Your task to perform on an android device: Show me the alarms in the clock app Image 0: 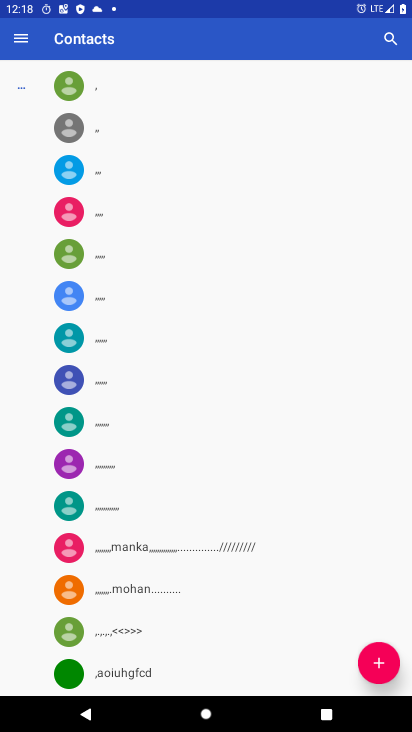
Step 0: press home button
Your task to perform on an android device: Show me the alarms in the clock app Image 1: 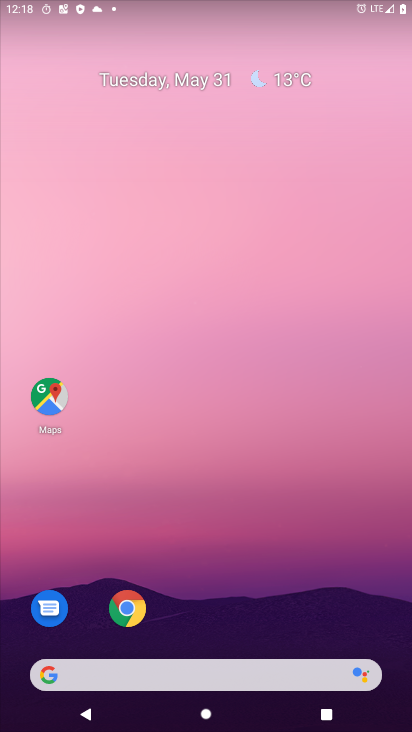
Step 1: drag from (251, 387) to (294, 9)
Your task to perform on an android device: Show me the alarms in the clock app Image 2: 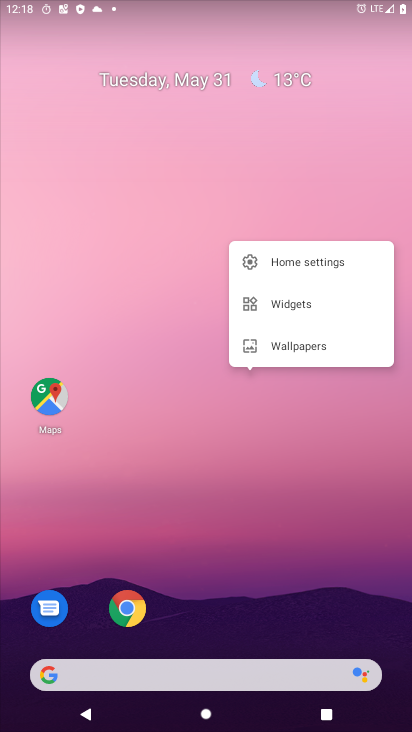
Step 2: drag from (234, 594) to (222, 19)
Your task to perform on an android device: Show me the alarms in the clock app Image 3: 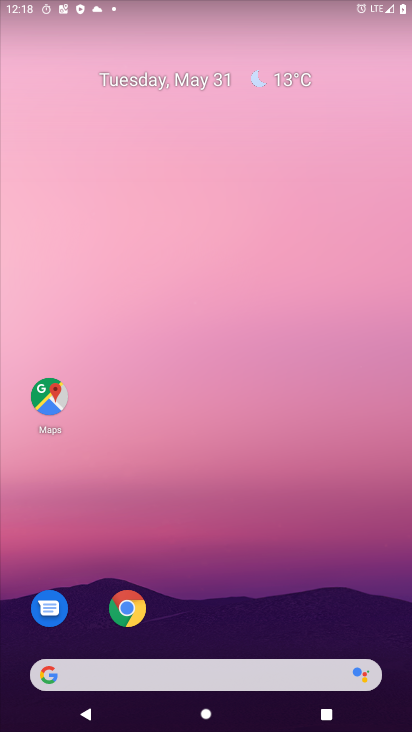
Step 3: drag from (282, 588) to (299, 1)
Your task to perform on an android device: Show me the alarms in the clock app Image 4: 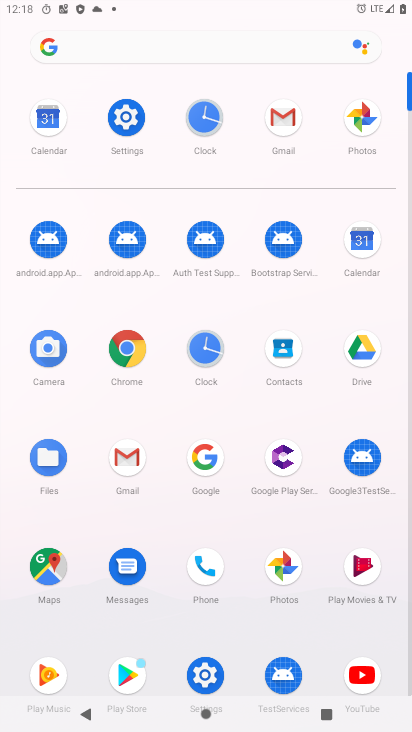
Step 4: click (210, 118)
Your task to perform on an android device: Show me the alarms in the clock app Image 5: 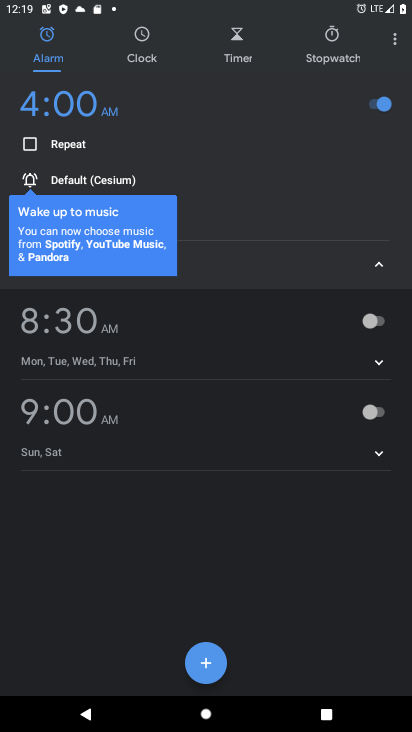
Step 5: task complete